Your task to perform on an android device: turn off notifications settings in the gmail app Image 0: 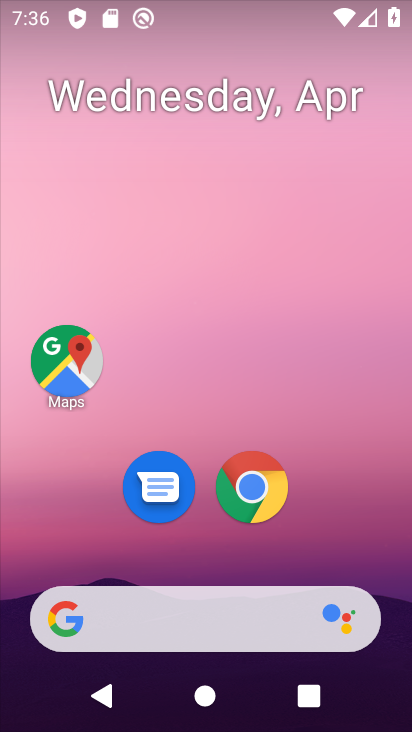
Step 0: drag from (368, 528) to (361, 80)
Your task to perform on an android device: turn off notifications settings in the gmail app Image 1: 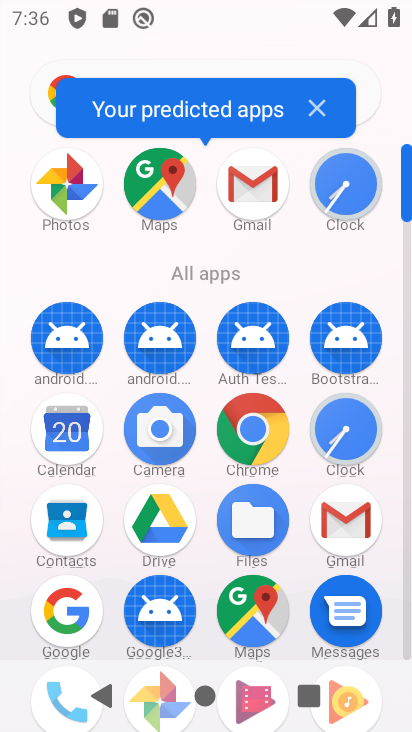
Step 1: click (345, 501)
Your task to perform on an android device: turn off notifications settings in the gmail app Image 2: 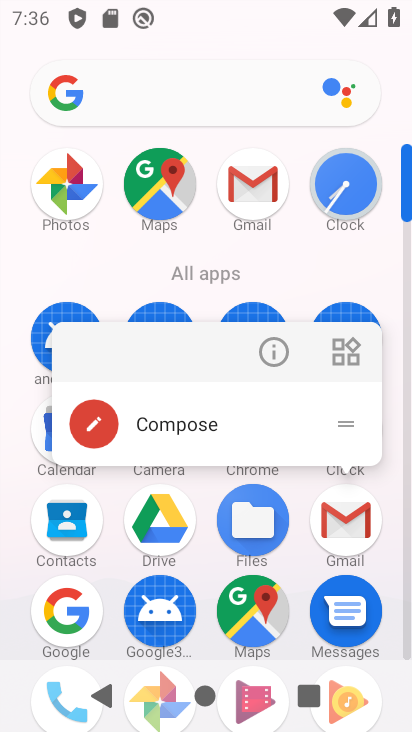
Step 2: click (342, 498)
Your task to perform on an android device: turn off notifications settings in the gmail app Image 3: 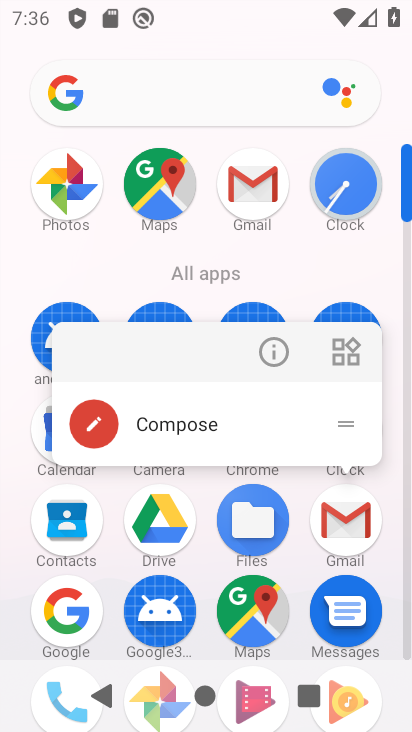
Step 3: click (348, 515)
Your task to perform on an android device: turn off notifications settings in the gmail app Image 4: 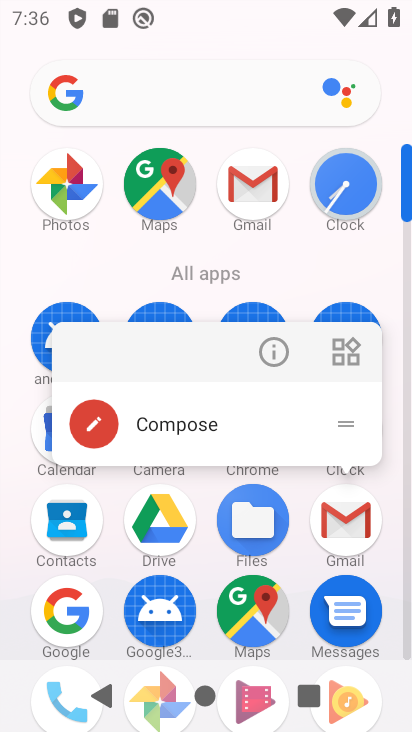
Step 4: click (346, 514)
Your task to perform on an android device: turn off notifications settings in the gmail app Image 5: 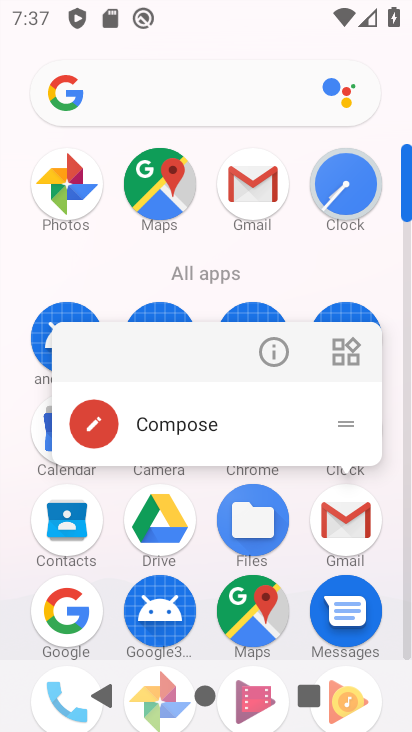
Step 5: click (342, 507)
Your task to perform on an android device: turn off notifications settings in the gmail app Image 6: 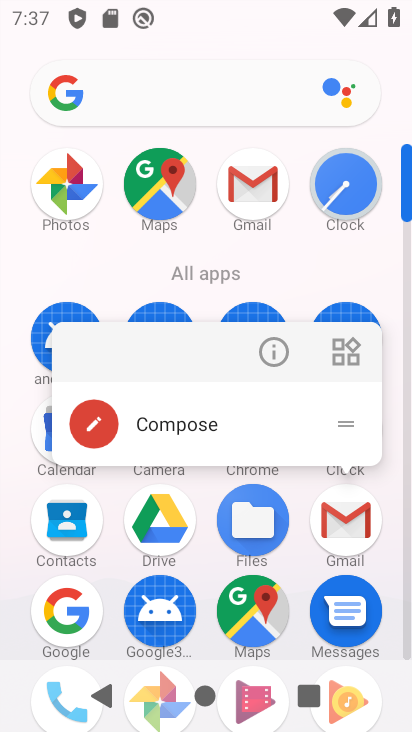
Step 6: click (332, 529)
Your task to perform on an android device: turn off notifications settings in the gmail app Image 7: 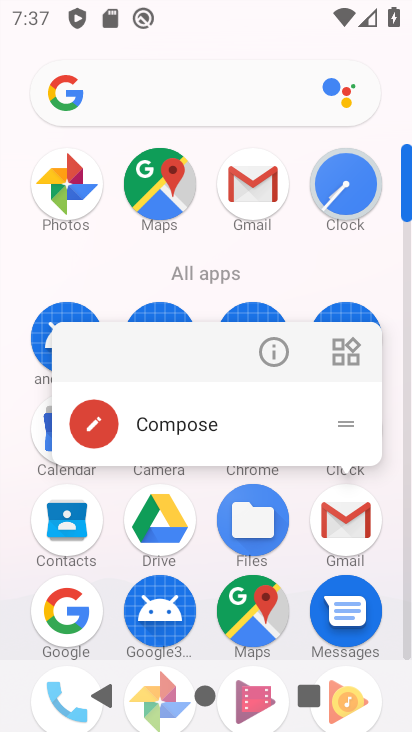
Step 7: click (392, 507)
Your task to perform on an android device: turn off notifications settings in the gmail app Image 8: 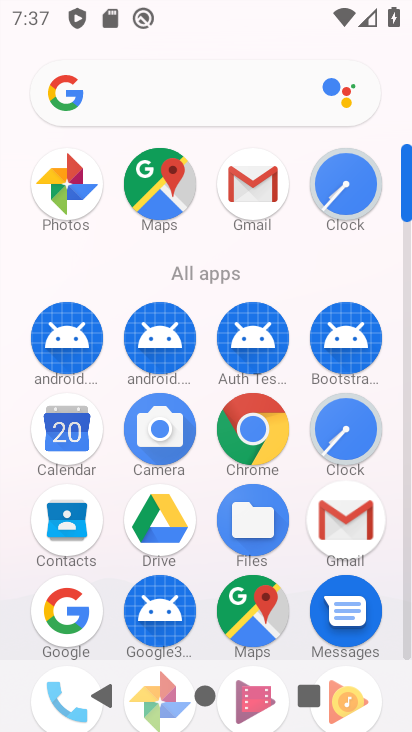
Step 8: click (350, 517)
Your task to perform on an android device: turn off notifications settings in the gmail app Image 9: 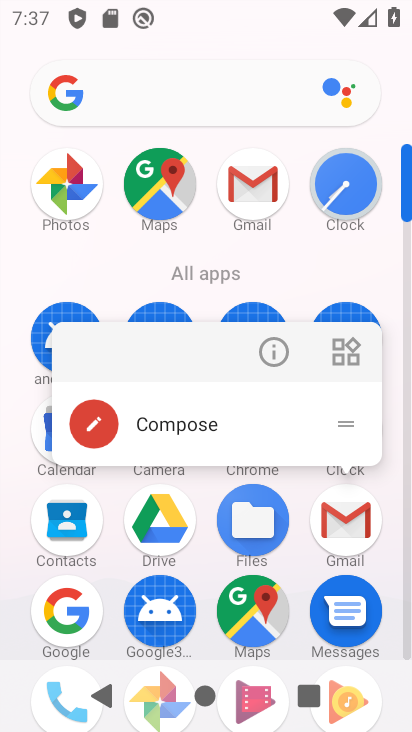
Step 9: click (302, 495)
Your task to perform on an android device: turn off notifications settings in the gmail app Image 10: 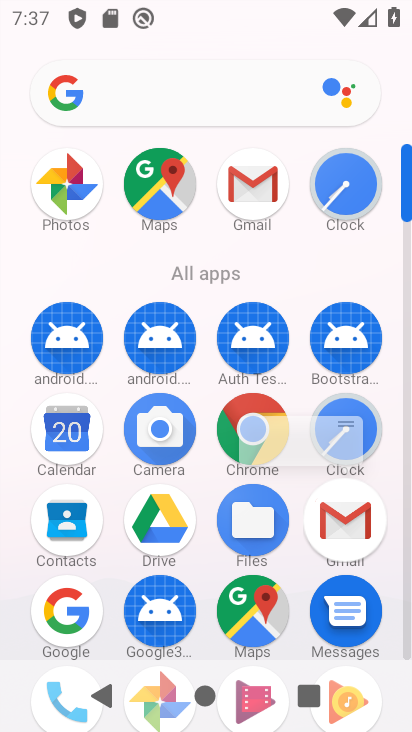
Step 10: click (342, 529)
Your task to perform on an android device: turn off notifications settings in the gmail app Image 11: 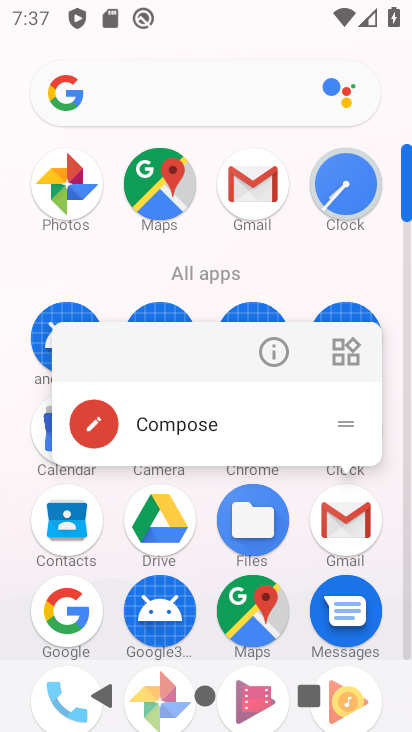
Step 11: drag from (387, 557) to (355, 525)
Your task to perform on an android device: turn off notifications settings in the gmail app Image 12: 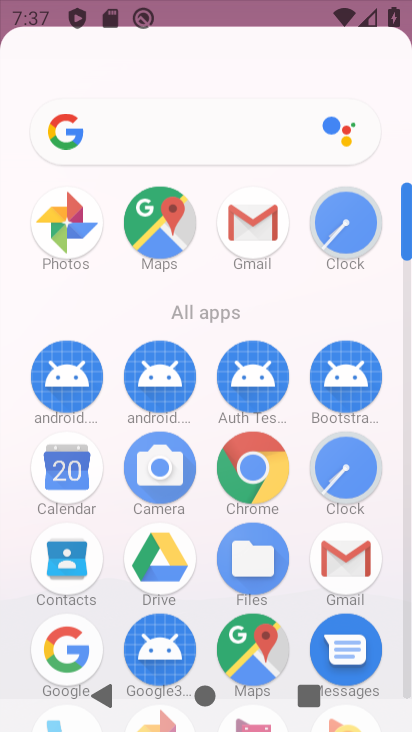
Step 12: click (355, 525)
Your task to perform on an android device: turn off notifications settings in the gmail app Image 13: 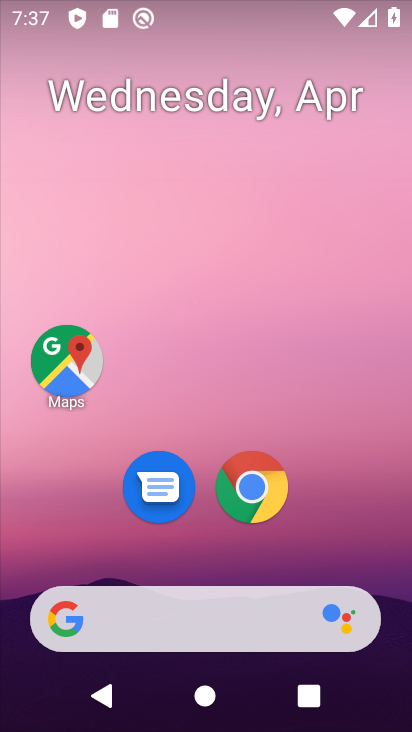
Step 13: drag from (341, 401) to (305, 138)
Your task to perform on an android device: turn off notifications settings in the gmail app Image 14: 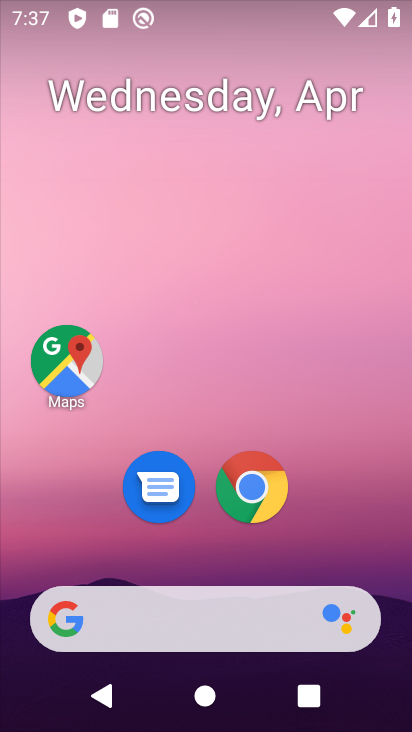
Step 14: drag from (345, 260) to (335, 173)
Your task to perform on an android device: turn off notifications settings in the gmail app Image 15: 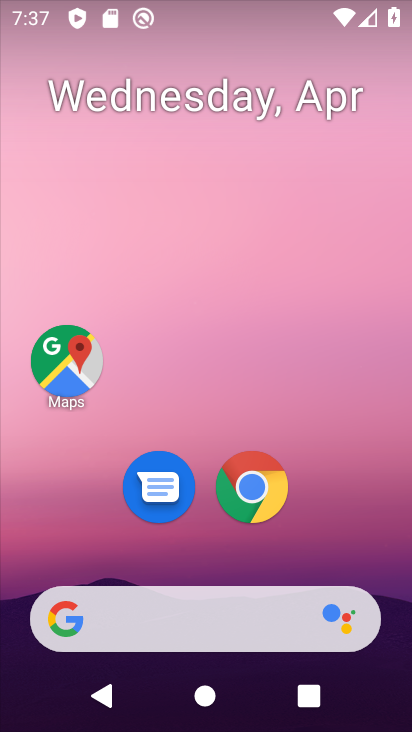
Step 15: drag from (335, 436) to (304, 102)
Your task to perform on an android device: turn off notifications settings in the gmail app Image 16: 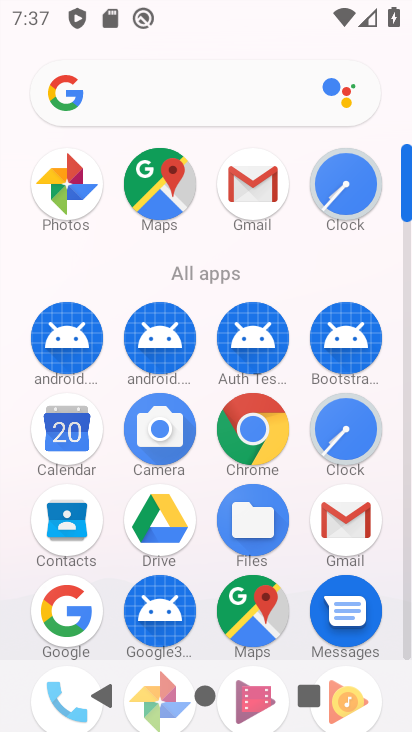
Step 16: click (347, 512)
Your task to perform on an android device: turn off notifications settings in the gmail app Image 17: 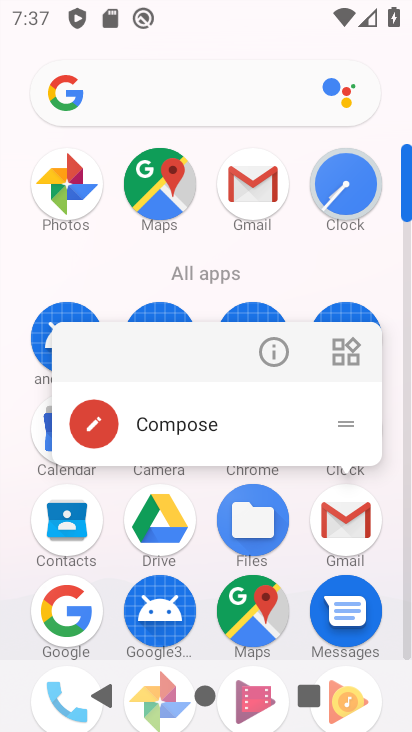
Step 17: click (347, 512)
Your task to perform on an android device: turn off notifications settings in the gmail app Image 18: 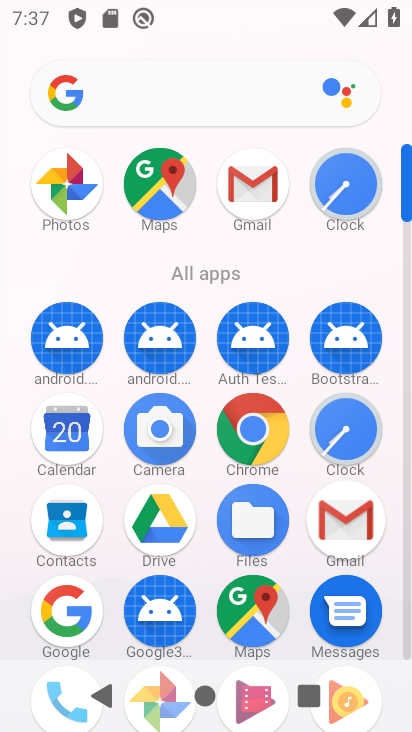
Step 18: click (347, 512)
Your task to perform on an android device: turn off notifications settings in the gmail app Image 19: 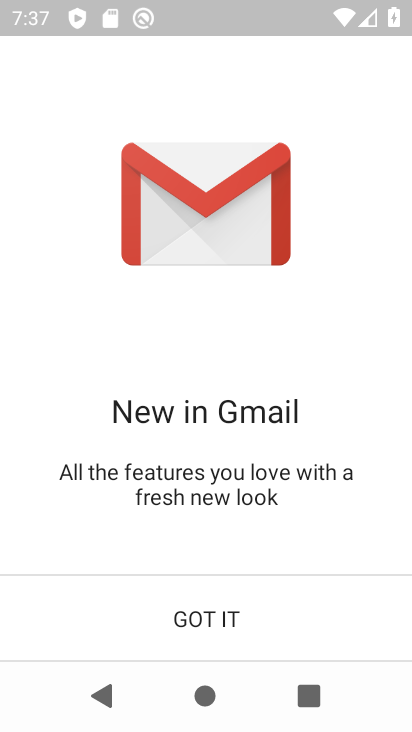
Step 19: click (190, 624)
Your task to perform on an android device: turn off notifications settings in the gmail app Image 20: 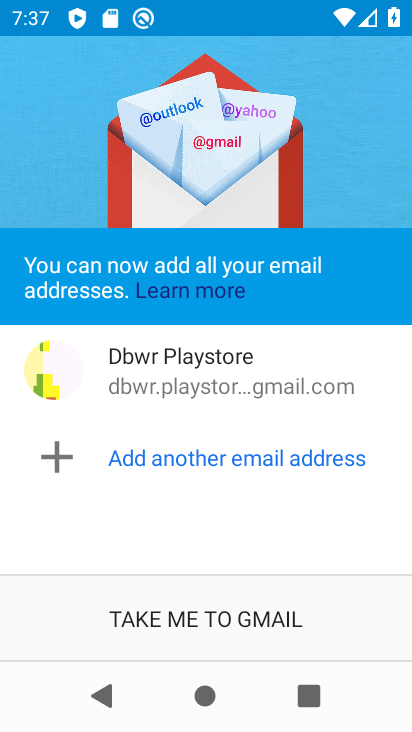
Step 20: click (190, 624)
Your task to perform on an android device: turn off notifications settings in the gmail app Image 21: 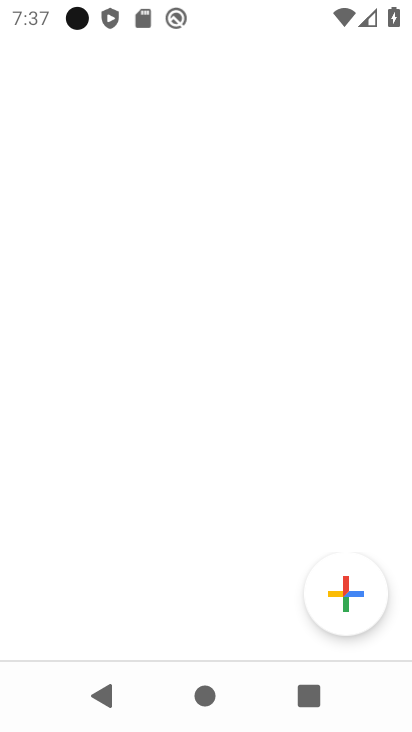
Step 21: click (190, 624)
Your task to perform on an android device: turn off notifications settings in the gmail app Image 22: 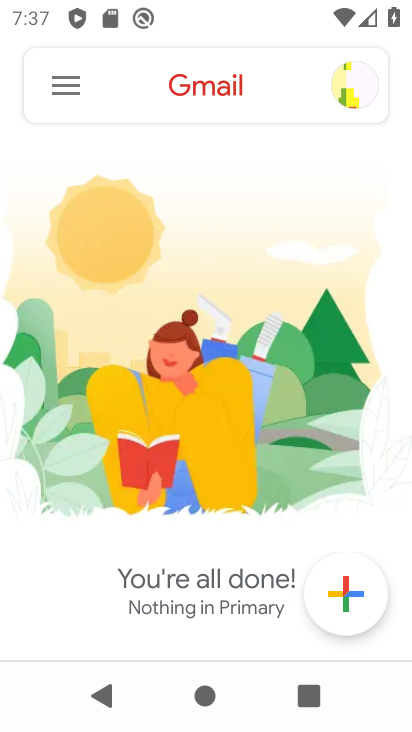
Step 22: click (58, 81)
Your task to perform on an android device: turn off notifications settings in the gmail app Image 23: 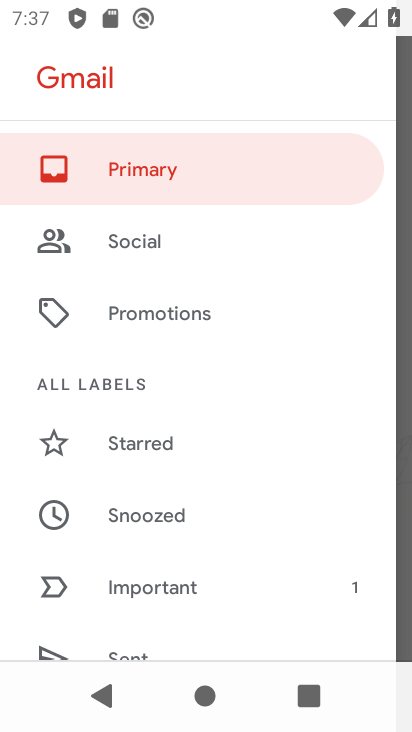
Step 23: drag from (288, 427) to (305, 128)
Your task to perform on an android device: turn off notifications settings in the gmail app Image 24: 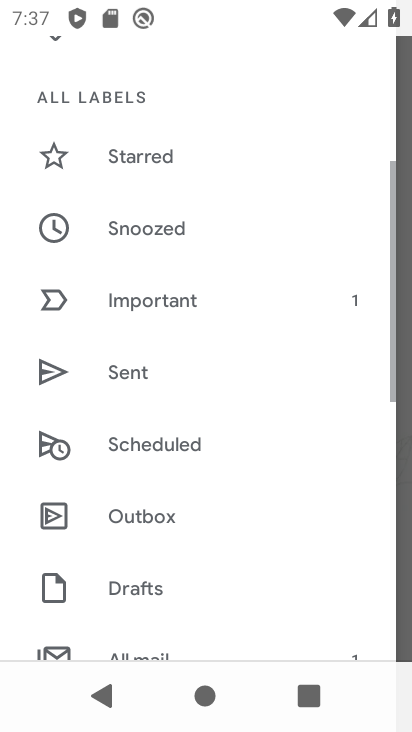
Step 24: drag from (214, 582) to (248, 184)
Your task to perform on an android device: turn off notifications settings in the gmail app Image 25: 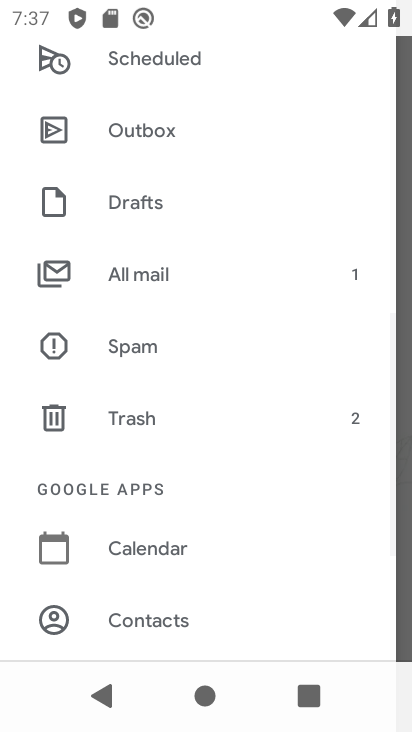
Step 25: drag from (196, 588) to (286, 246)
Your task to perform on an android device: turn off notifications settings in the gmail app Image 26: 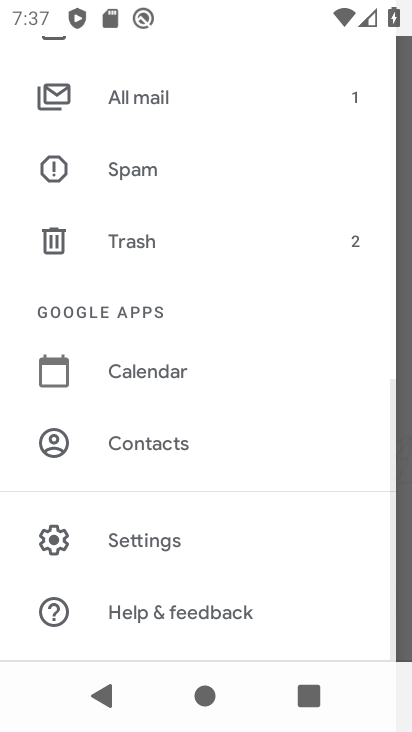
Step 26: click (181, 547)
Your task to perform on an android device: turn off notifications settings in the gmail app Image 27: 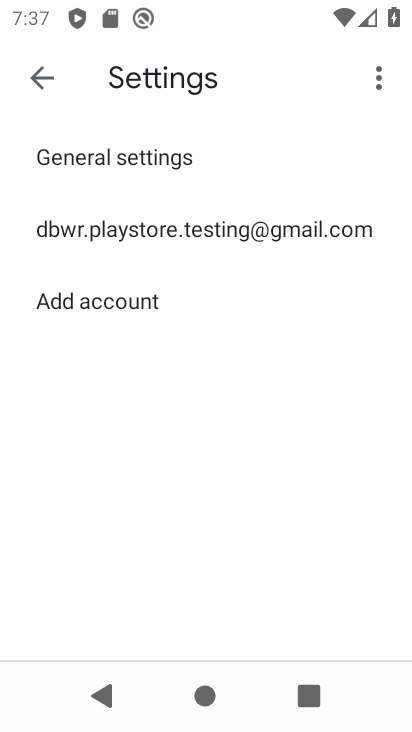
Step 27: click (254, 240)
Your task to perform on an android device: turn off notifications settings in the gmail app Image 28: 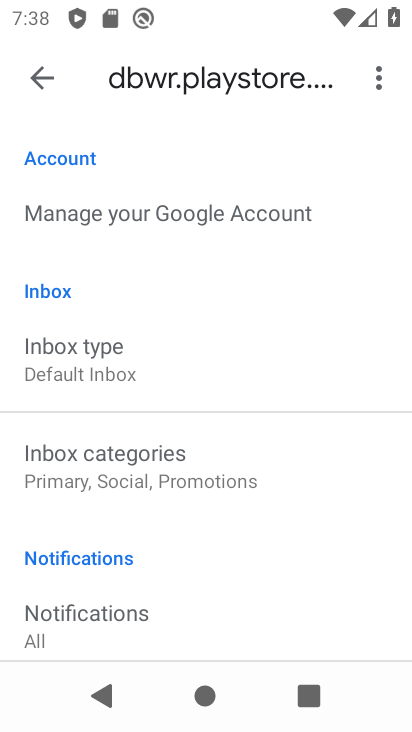
Step 28: drag from (254, 240) to (250, 656)
Your task to perform on an android device: turn off notifications settings in the gmail app Image 29: 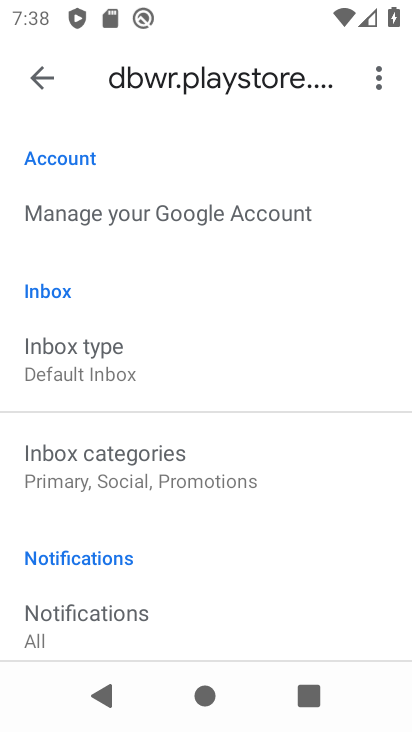
Step 29: drag from (197, 504) to (252, 211)
Your task to perform on an android device: turn off notifications settings in the gmail app Image 30: 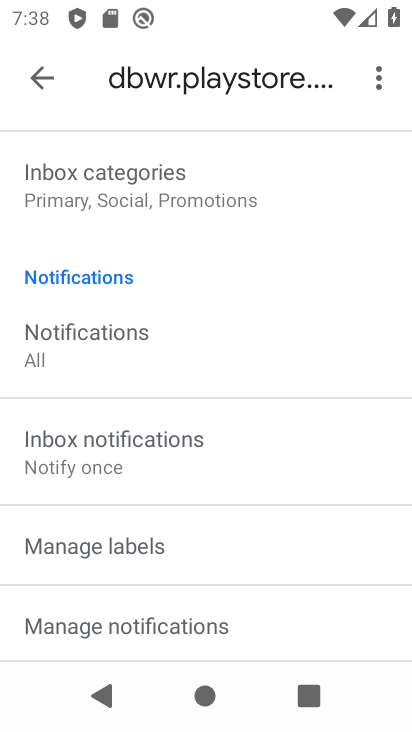
Step 30: click (149, 647)
Your task to perform on an android device: turn off notifications settings in the gmail app Image 31: 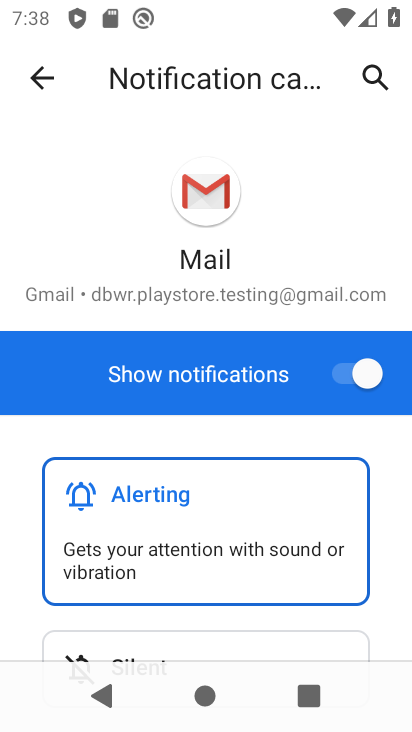
Step 31: click (346, 369)
Your task to perform on an android device: turn off notifications settings in the gmail app Image 32: 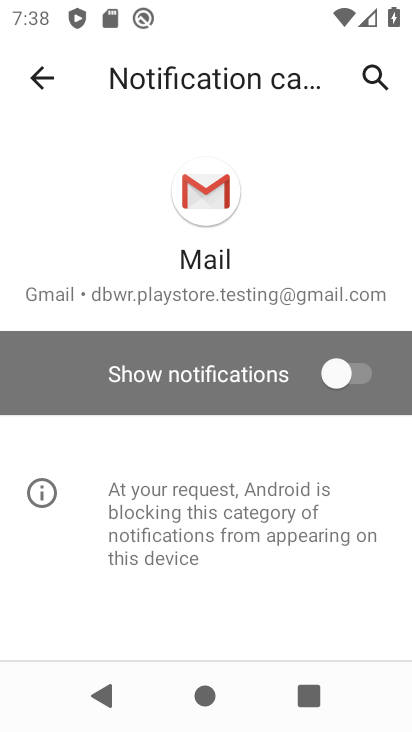
Step 32: task complete